Your task to perform on an android device: Open the map Image 0: 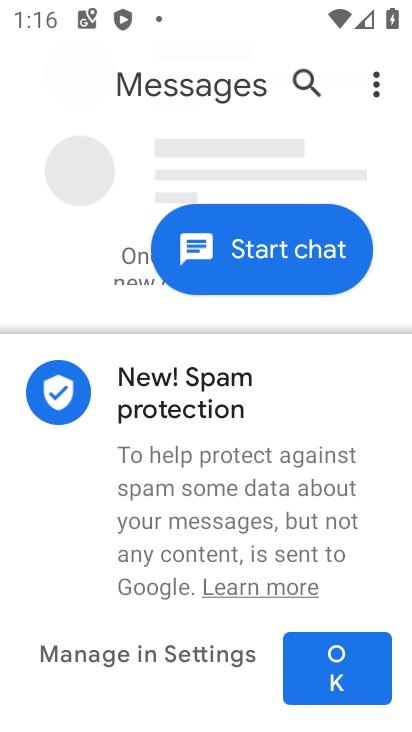
Step 0: press home button
Your task to perform on an android device: Open the map Image 1: 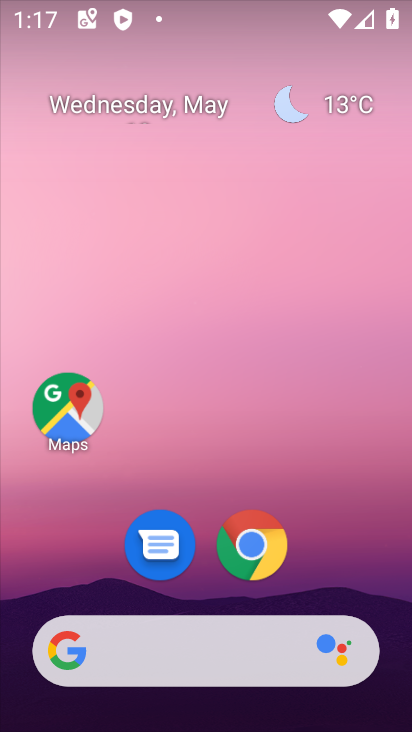
Step 1: click (75, 394)
Your task to perform on an android device: Open the map Image 2: 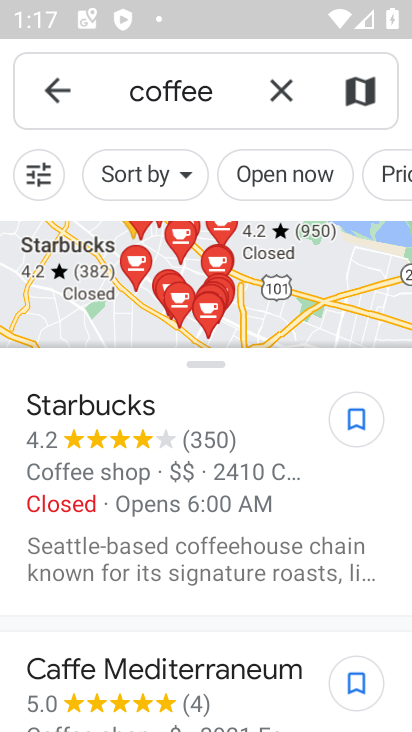
Step 2: click (62, 99)
Your task to perform on an android device: Open the map Image 3: 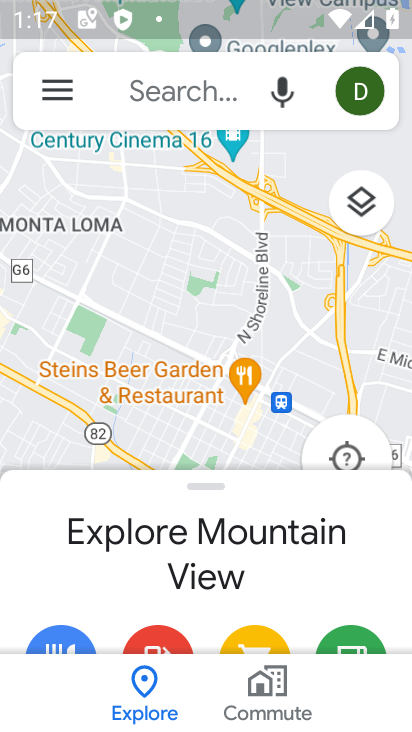
Step 3: task complete